Your task to perform on an android device: delete browsing data in the chrome app Image 0: 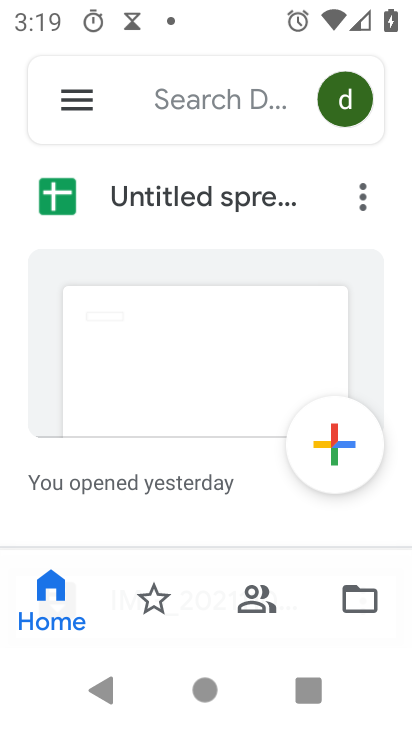
Step 0: press back button
Your task to perform on an android device: delete browsing data in the chrome app Image 1: 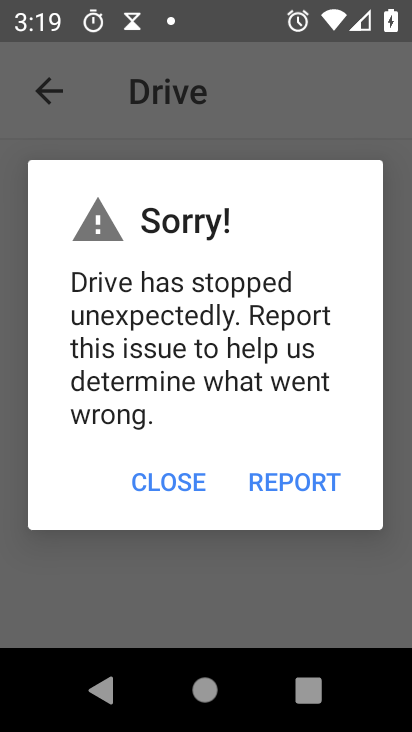
Step 1: press back button
Your task to perform on an android device: delete browsing data in the chrome app Image 2: 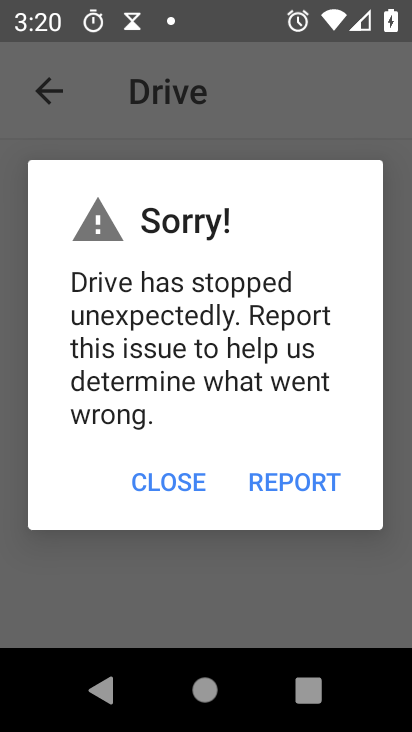
Step 2: press back button
Your task to perform on an android device: delete browsing data in the chrome app Image 3: 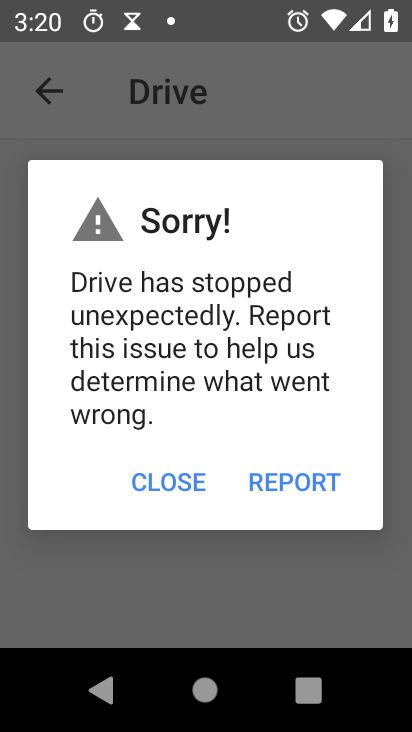
Step 3: press home button
Your task to perform on an android device: delete browsing data in the chrome app Image 4: 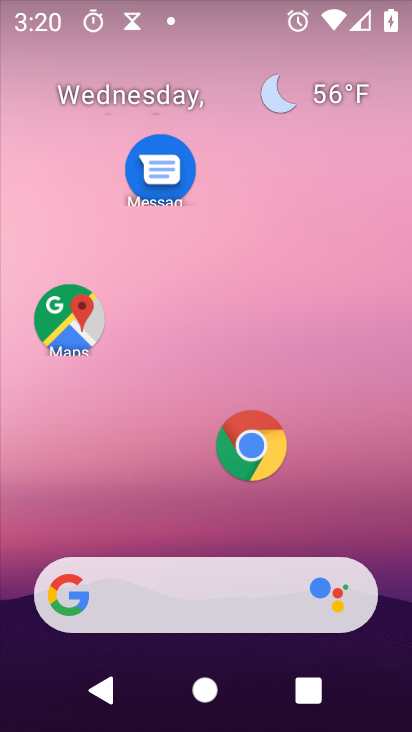
Step 4: click (244, 441)
Your task to perform on an android device: delete browsing data in the chrome app Image 5: 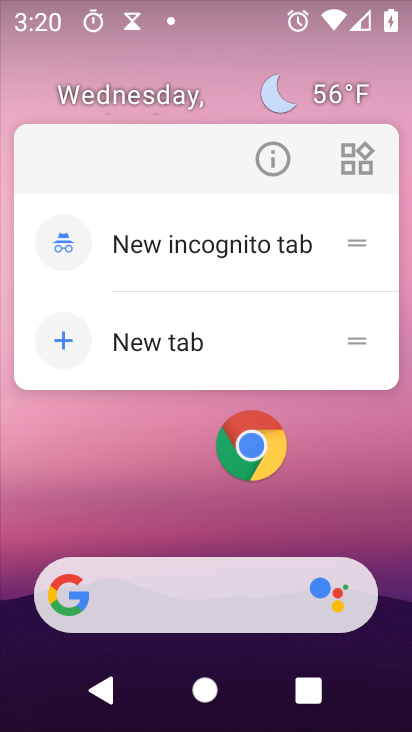
Step 5: click (262, 424)
Your task to perform on an android device: delete browsing data in the chrome app Image 6: 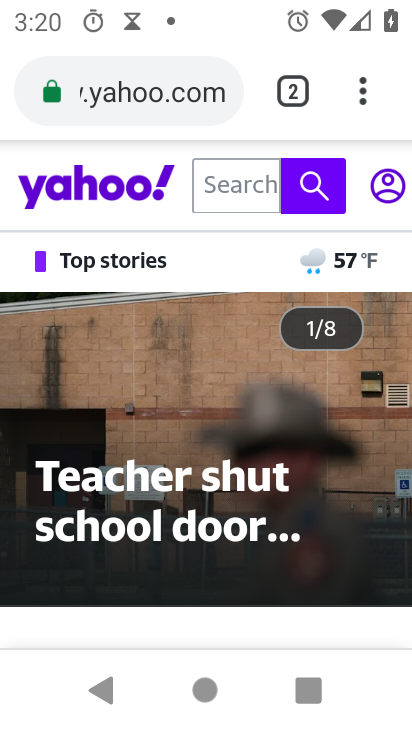
Step 6: click (367, 90)
Your task to perform on an android device: delete browsing data in the chrome app Image 7: 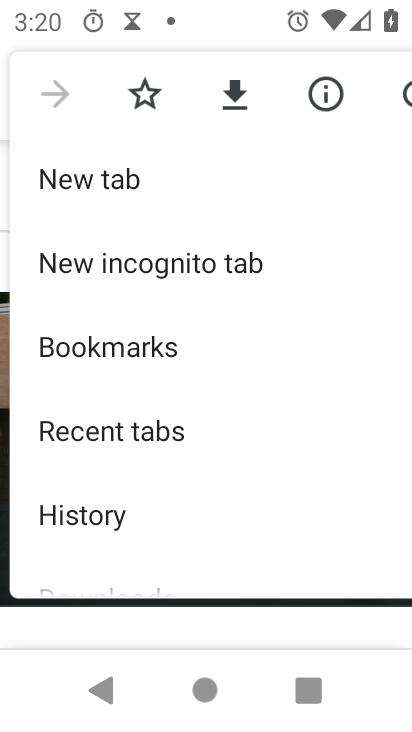
Step 7: click (64, 519)
Your task to perform on an android device: delete browsing data in the chrome app Image 8: 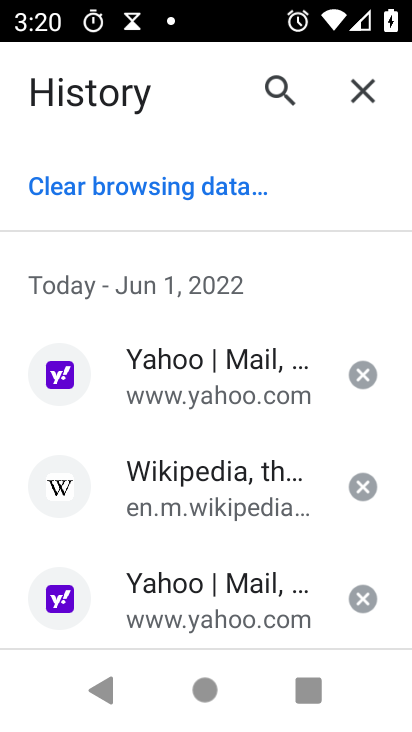
Step 8: click (191, 190)
Your task to perform on an android device: delete browsing data in the chrome app Image 9: 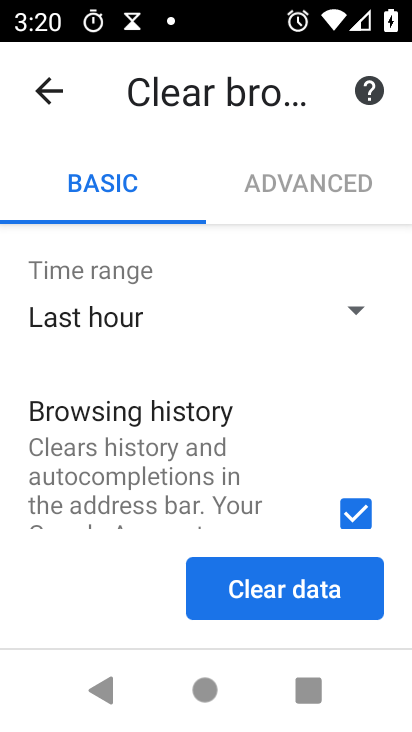
Step 9: click (307, 582)
Your task to perform on an android device: delete browsing data in the chrome app Image 10: 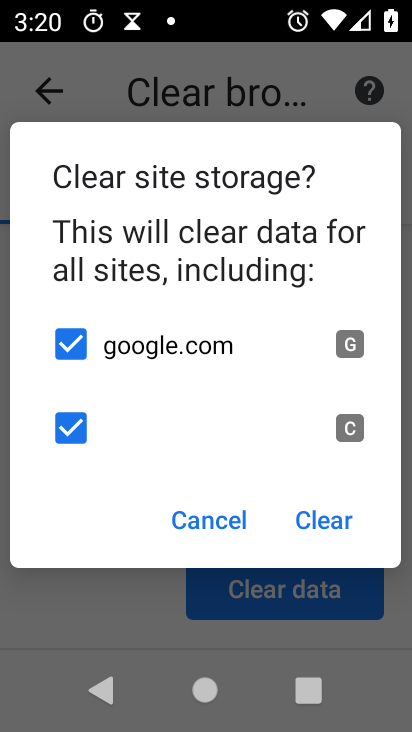
Step 10: click (348, 541)
Your task to perform on an android device: delete browsing data in the chrome app Image 11: 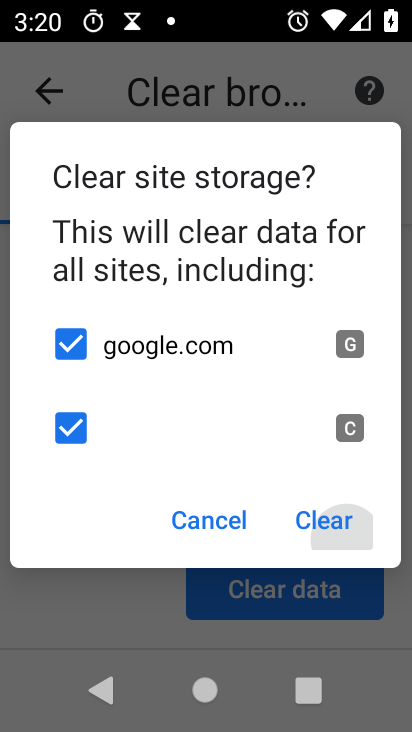
Step 11: click (340, 530)
Your task to perform on an android device: delete browsing data in the chrome app Image 12: 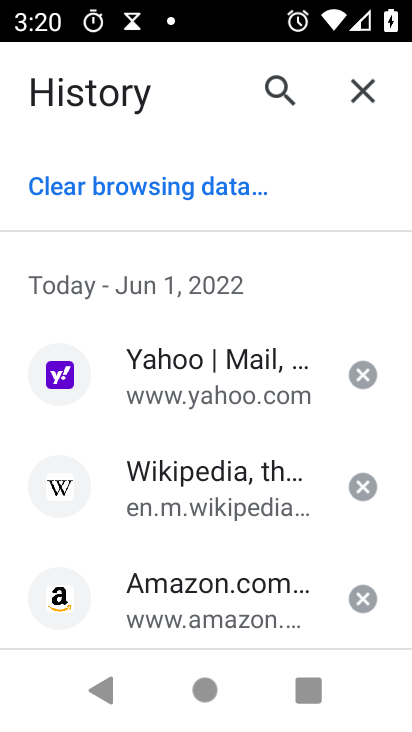
Step 12: task complete